Your task to perform on an android device: Open the Play Movies app and select the watchlist tab. Image 0: 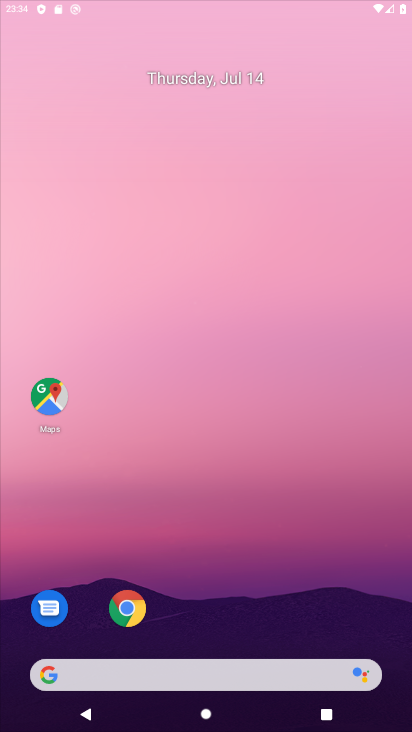
Step 0: click (85, 666)
Your task to perform on an android device: Open the Play Movies app and select the watchlist tab. Image 1: 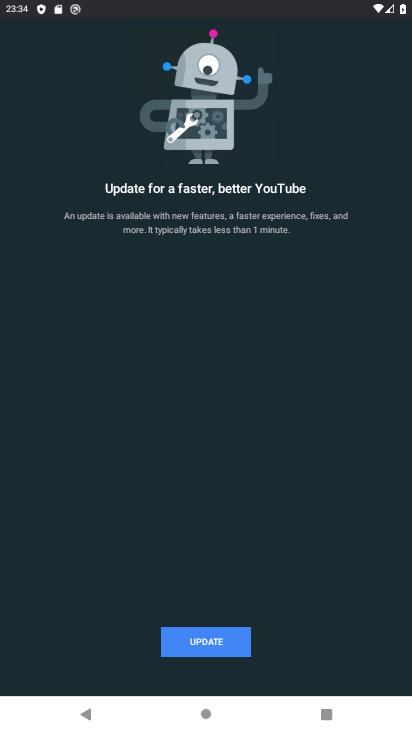
Step 1: press home button
Your task to perform on an android device: Open the Play Movies app and select the watchlist tab. Image 2: 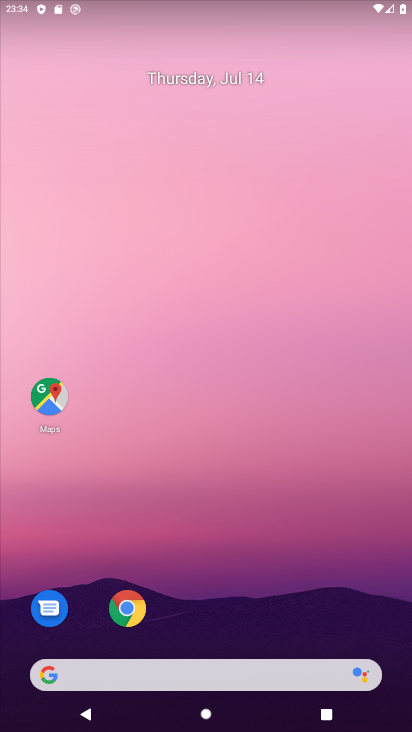
Step 2: drag from (21, 698) to (152, 288)
Your task to perform on an android device: Open the Play Movies app and select the watchlist tab. Image 3: 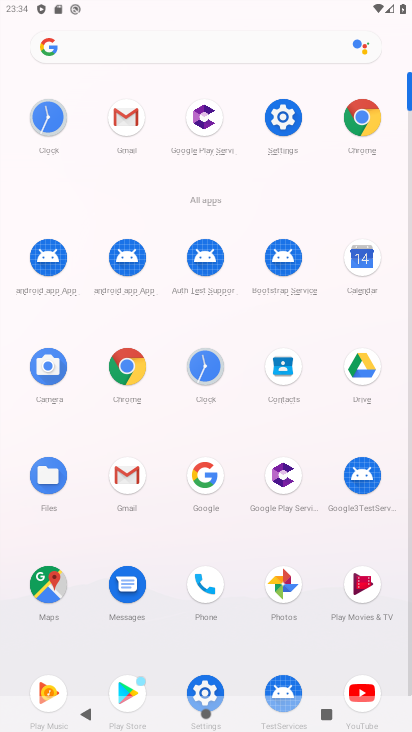
Step 3: click (367, 578)
Your task to perform on an android device: Open the Play Movies app and select the watchlist tab. Image 4: 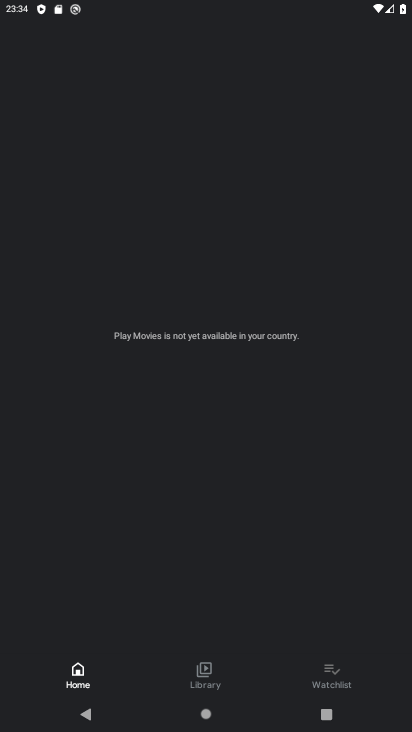
Step 4: click (325, 670)
Your task to perform on an android device: Open the Play Movies app and select the watchlist tab. Image 5: 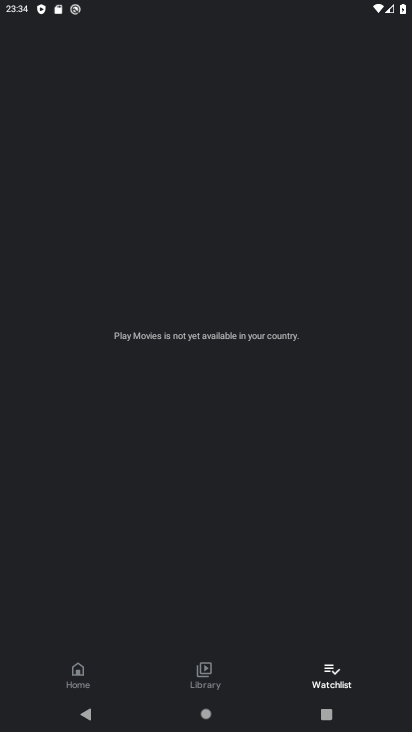
Step 5: task complete